Your task to perform on an android device: Open settings on Google Maps Image 0: 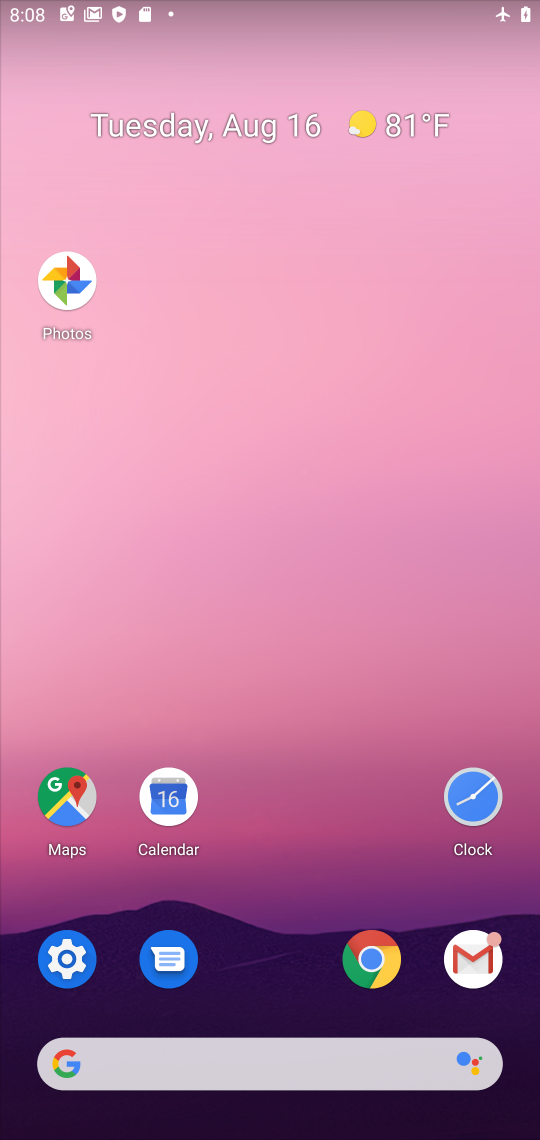
Step 0: click (57, 795)
Your task to perform on an android device: Open settings on Google Maps Image 1: 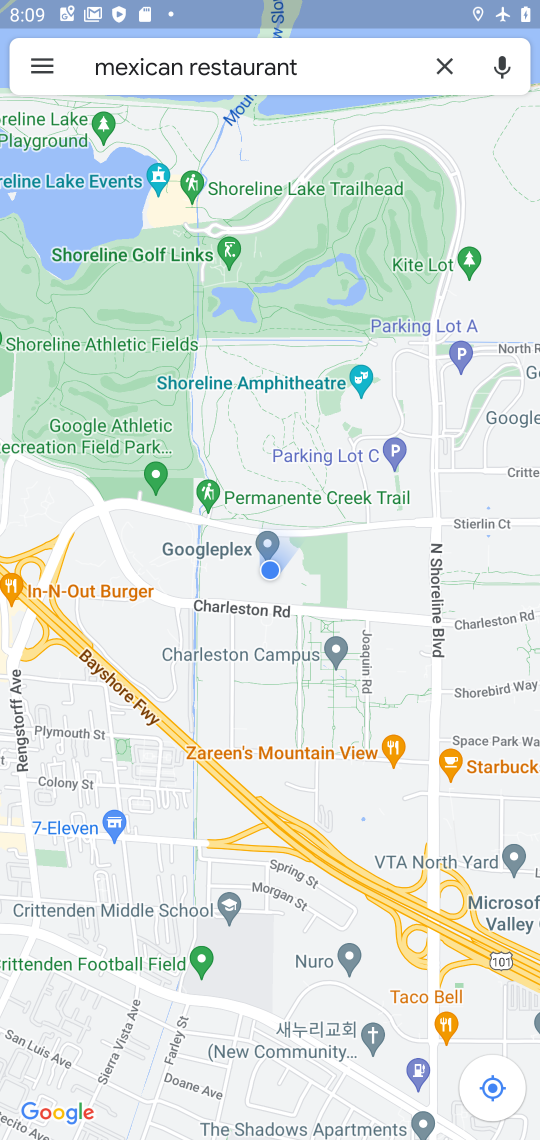
Step 1: click (35, 70)
Your task to perform on an android device: Open settings on Google Maps Image 2: 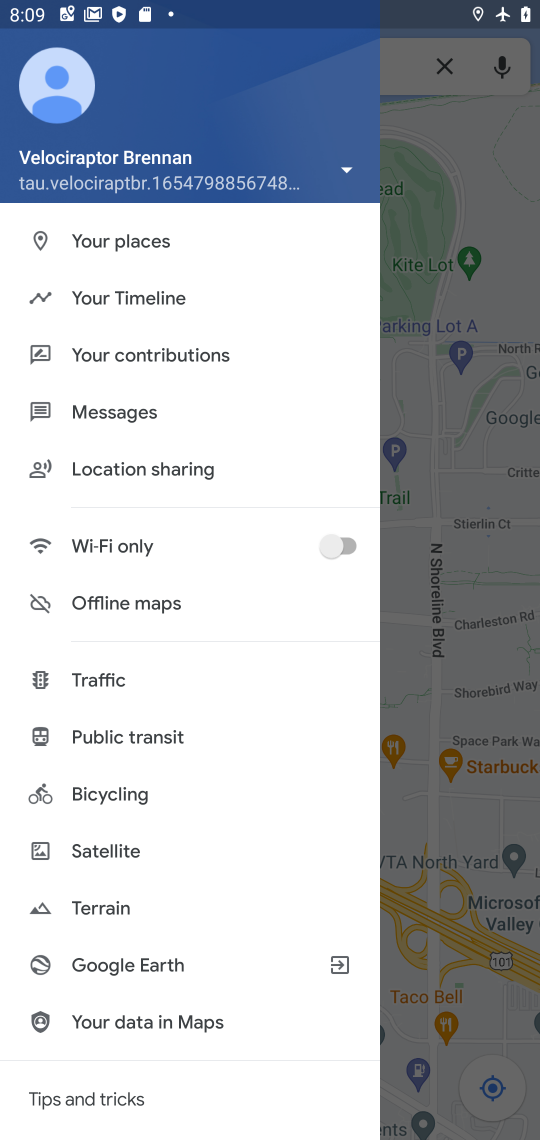
Step 2: drag from (216, 891) to (194, 389)
Your task to perform on an android device: Open settings on Google Maps Image 3: 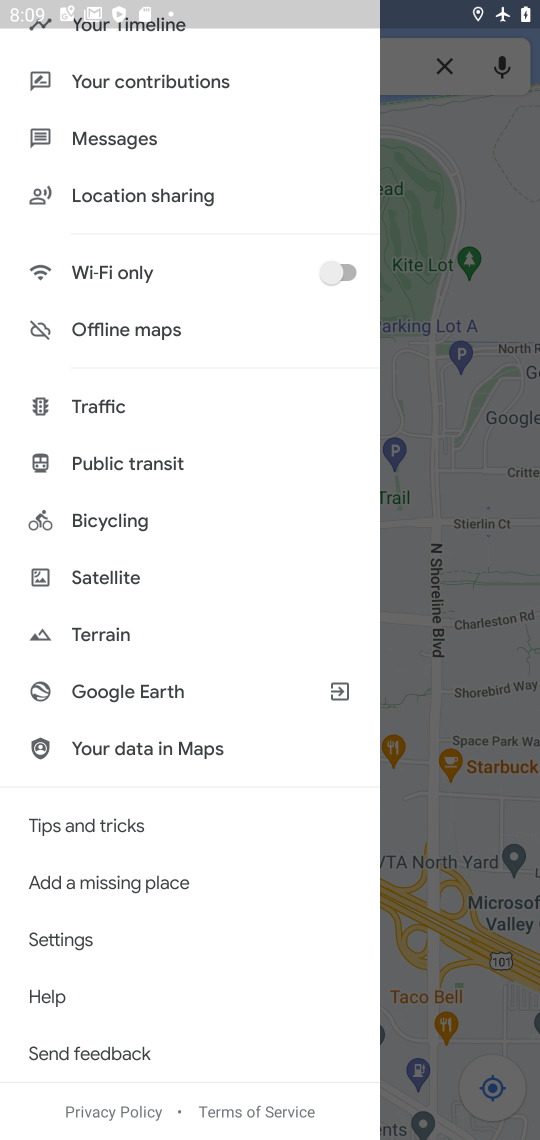
Step 3: click (57, 939)
Your task to perform on an android device: Open settings on Google Maps Image 4: 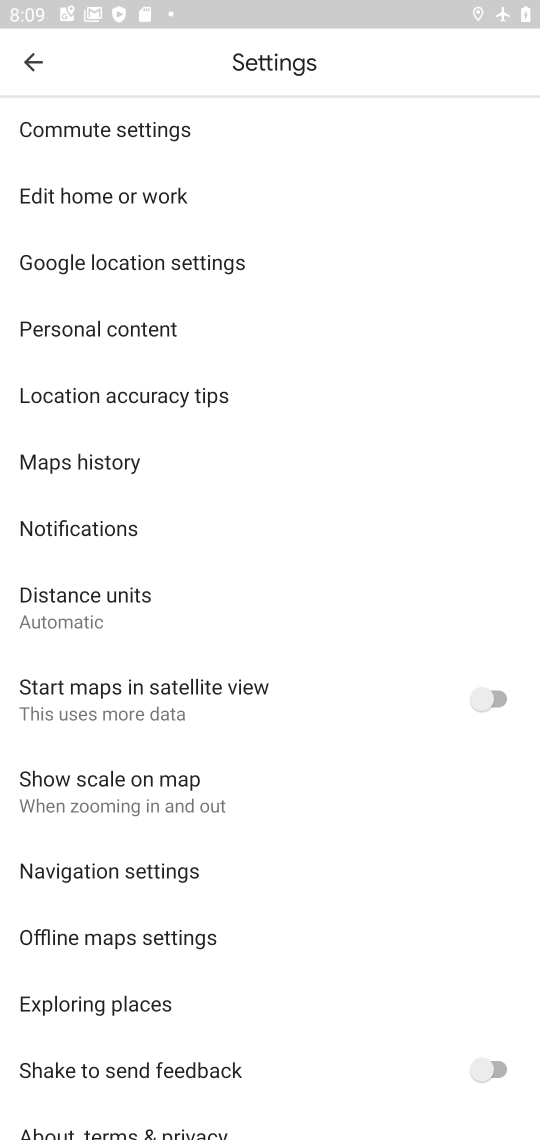
Step 4: task complete